Your task to perform on an android device: toggle sleep mode Image 0: 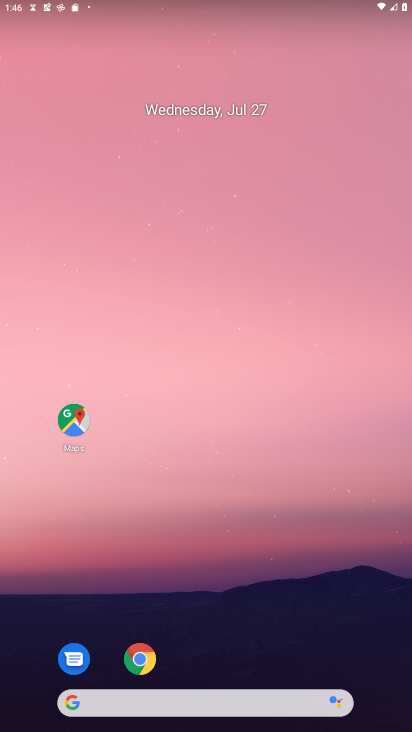
Step 0: drag from (44, 568) to (270, 0)
Your task to perform on an android device: toggle sleep mode Image 1: 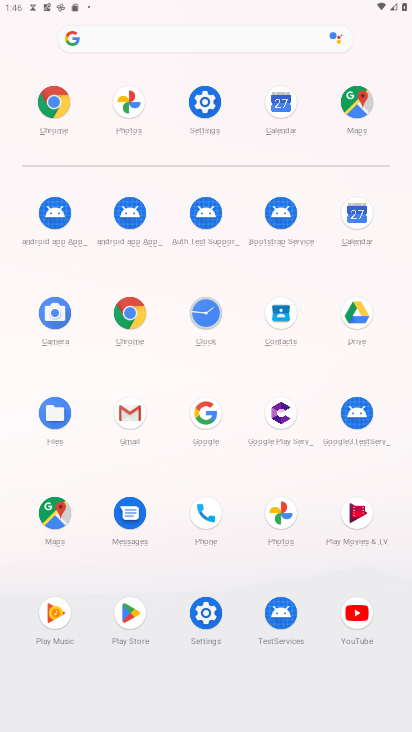
Step 1: click (206, 103)
Your task to perform on an android device: toggle sleep mode Image 2: 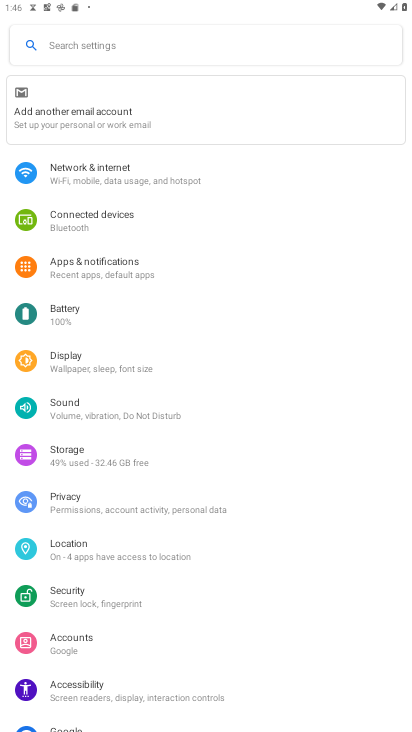
Step 2: click (110, 362)
Your task to perform on an android device: toggle sleep mode Image 3: 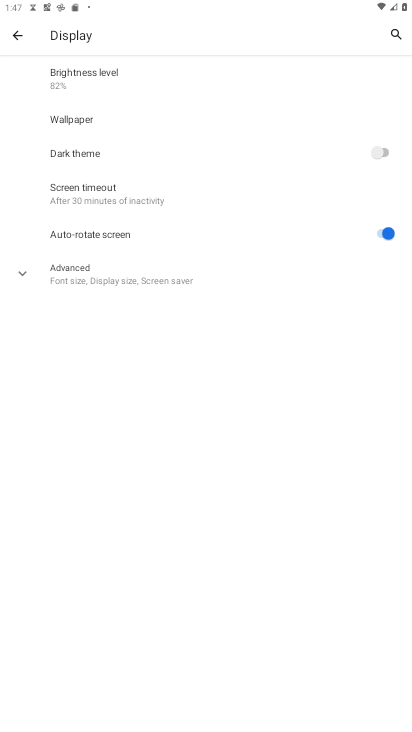
Step 3: task complete